Your task to perform on an android device: move an email to a new category in the gmail app Image 0: 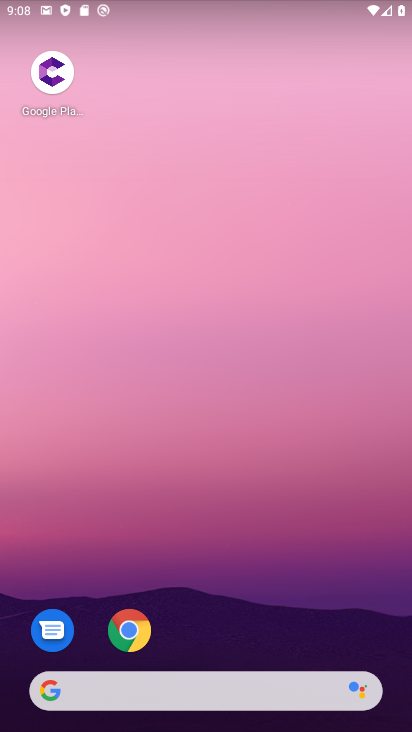
Step 0: press home button
Your task to perform on an android device: move an email to a new category in the gmail app Image 1: 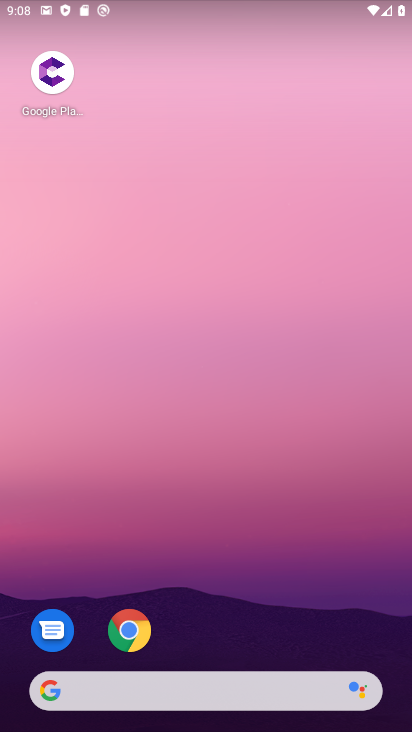
Step 1: drag from (196, 653) to (218, 3)
Your task to perform on an android device: move an email to a new category in the gmail app Image 2: 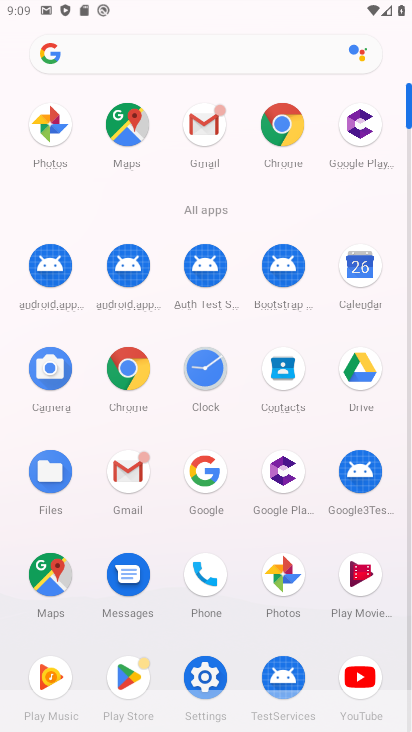
Step 2: click (208, 113)
Your task to perform on an android device: move an email to a new category in the gmail app Image 3: 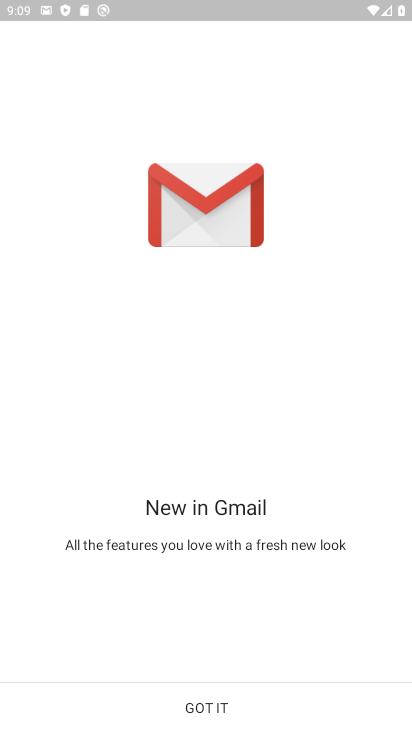
Step 3: click (229, 706)
Your task to perform on an android device: move an email to a new category in the gmail app Image 4: 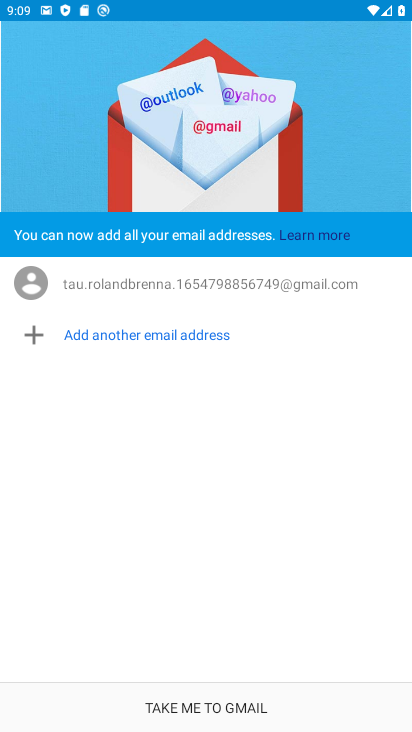
Step 4: click (202, 707)
Your task to perform on an android device: move an email to a new category in the gmail app Image 5: 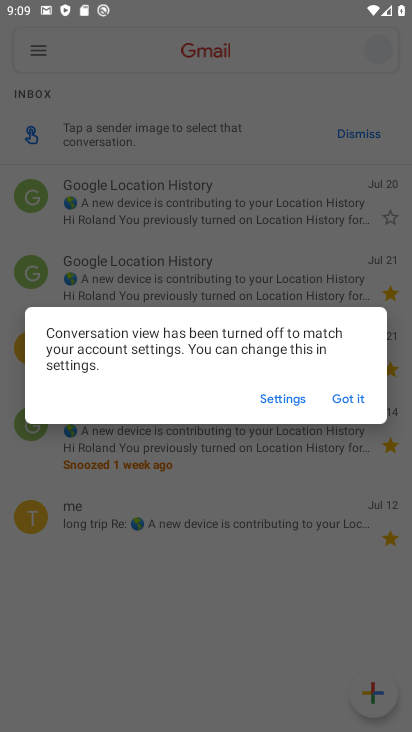
Step 5: click (350, 400)
Your task to perform on an android device: move an email to a new category in the gmail app Image 6: 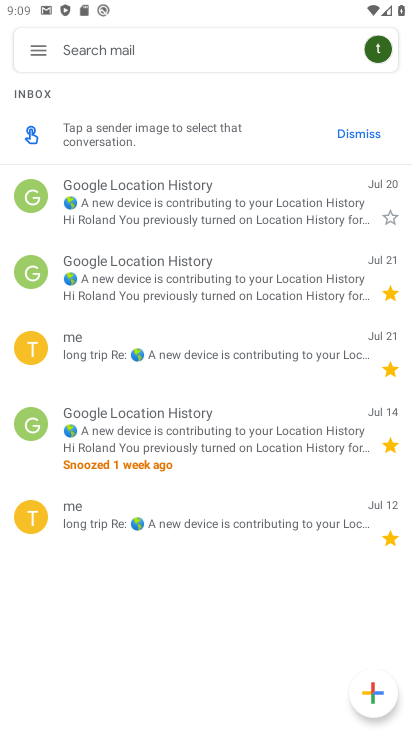
Step 6: click (36, 192)
Your task to perform on an android device: move an email to a new category in the gmail app Image 7: 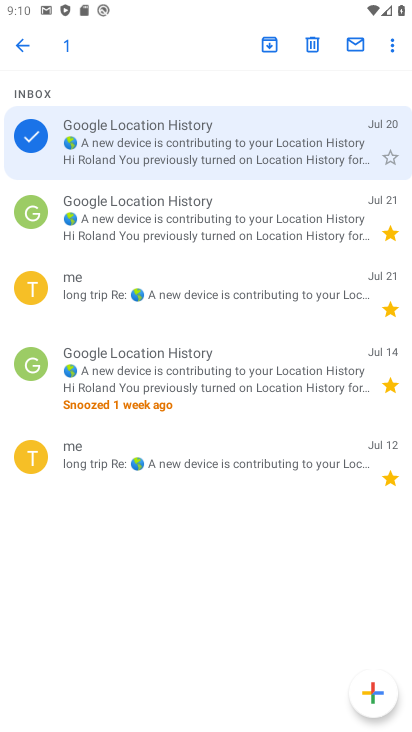
Step 7: click (391, 41)
Your task to perform on an android device: move an email to a new category in the gmail app Image 8: 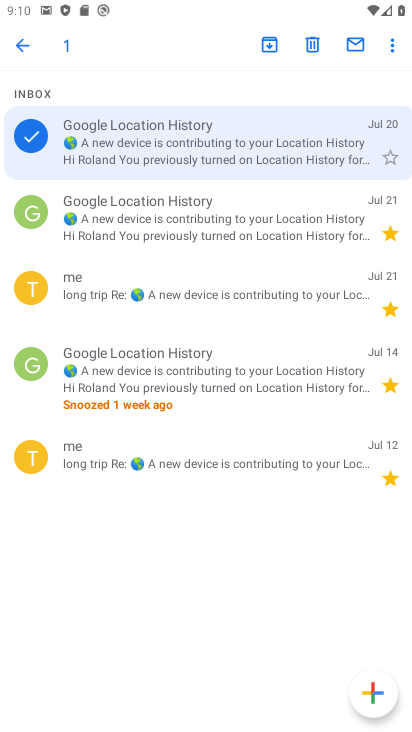
Step 8: click (392, 46)
Your task to perform on an android device: move an email to a new category in the gmail app Image 9: 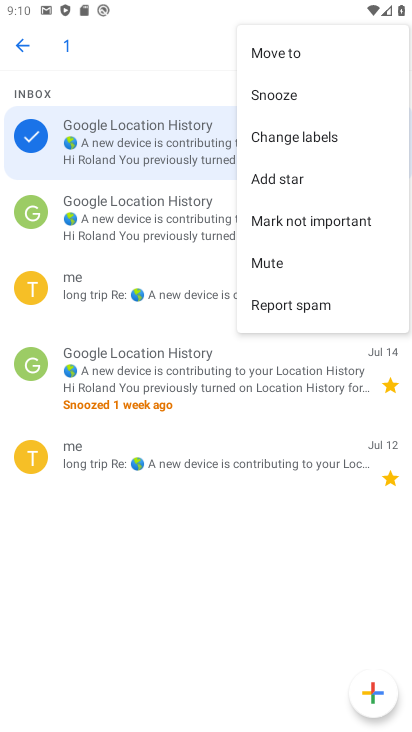
Step 9: click (298, 46)
Your task to perform on an android device: move an email to a new category in the gmail app Image 10: 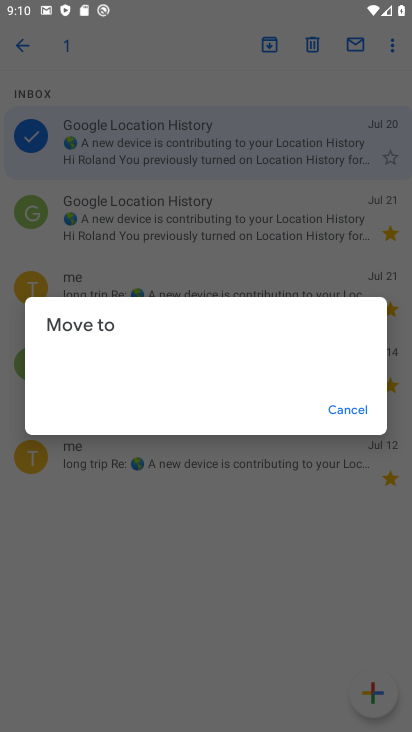
Step 10: click (348, 405)
Your task to perform on an android device: move an email to a new category in the gmail app Image 11: 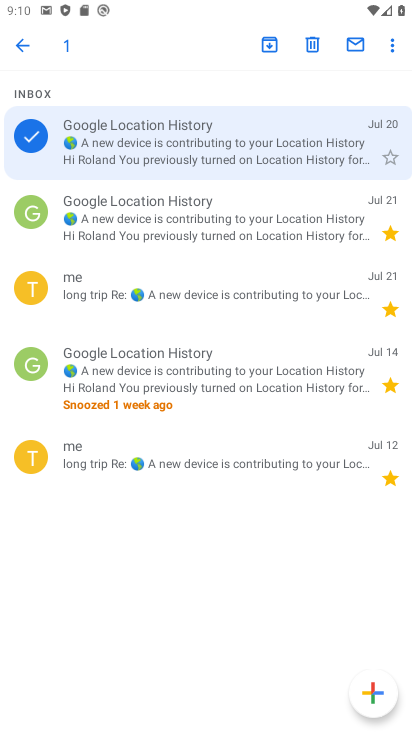
Step 11: task complete